Your task to perform on an android device: toggle notifications settings in the gmail app Image 0: 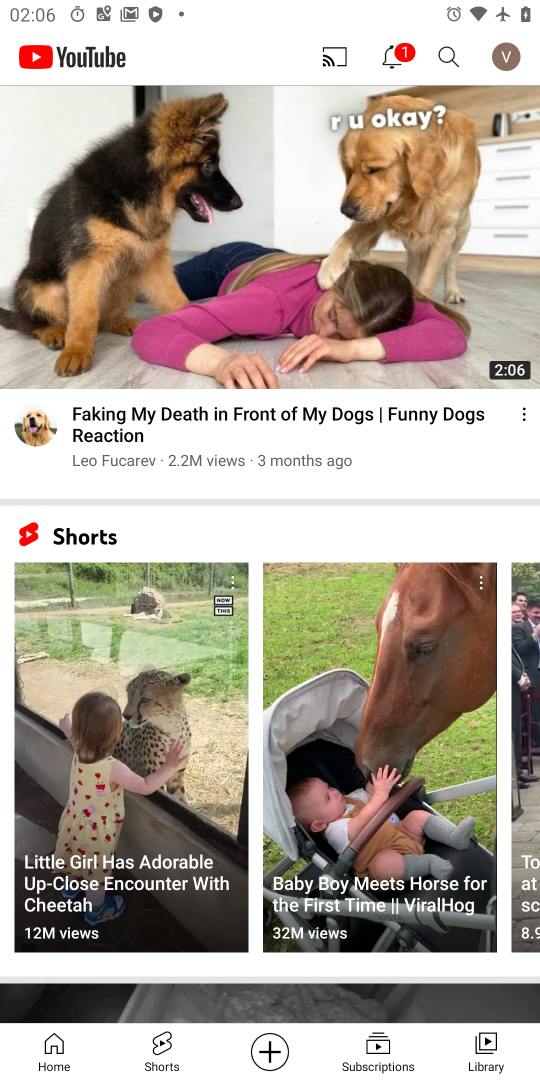
Step 0: press home button
Your task to perform on an android device: toggle notifications settings in the gmail app Image 1: 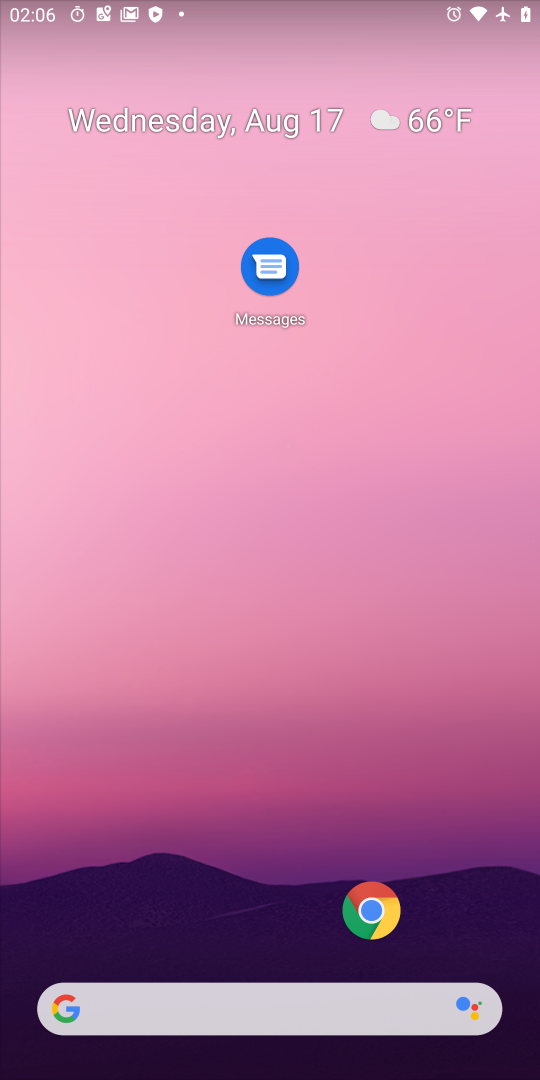
Step 1: press home button
Your task to perform on an android device: toggle notifications settings in the gmail app Image 2: 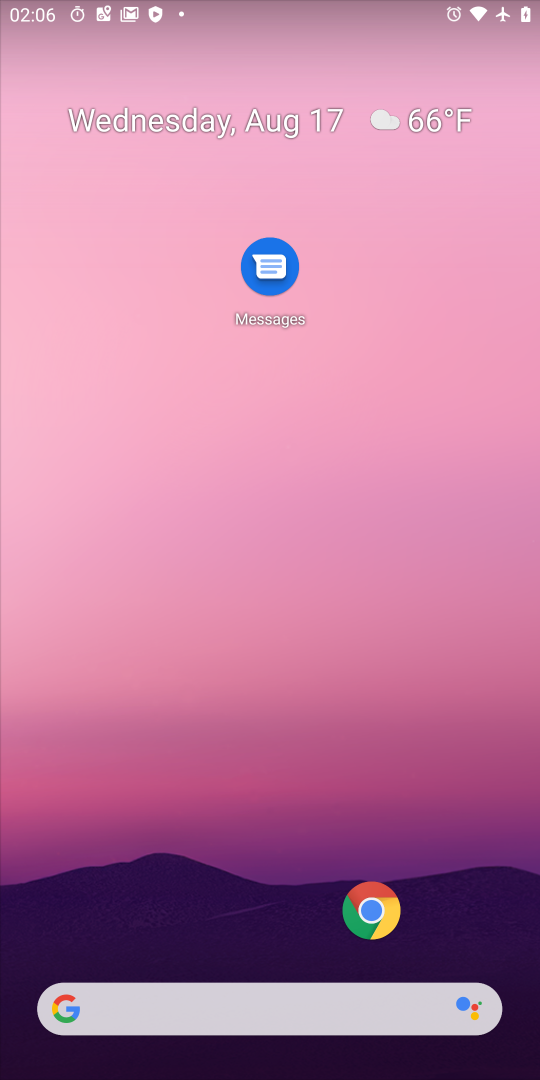
Step 2: click (165, 3)
Your task to perform on an android device: toggle notifications settings in the gmail app Image 3: 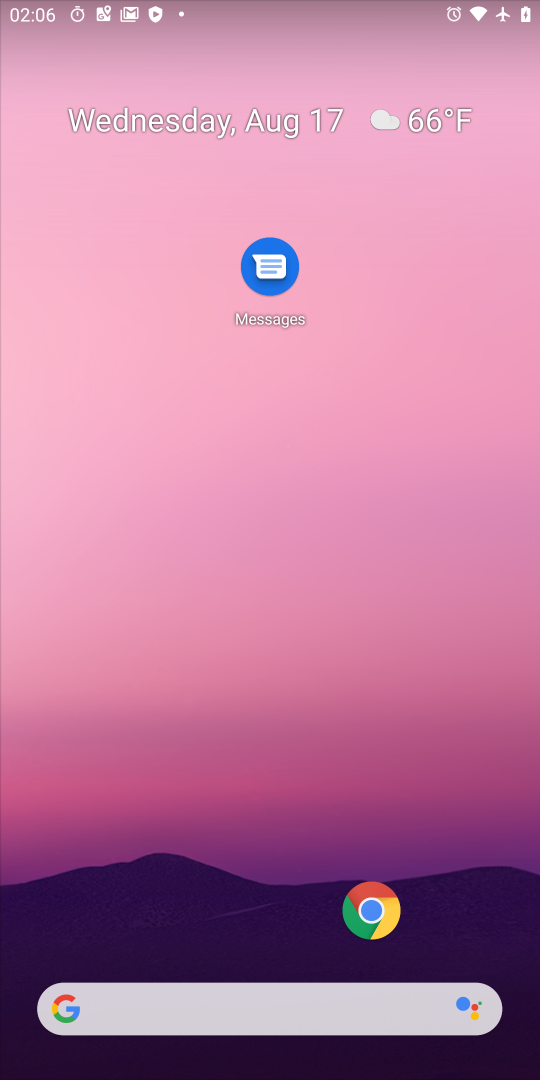
Step 3: drag from (254, 949) to (362, 102)
Your task to perform on an android device: toggle notifications settings in the gmail app Image 4: 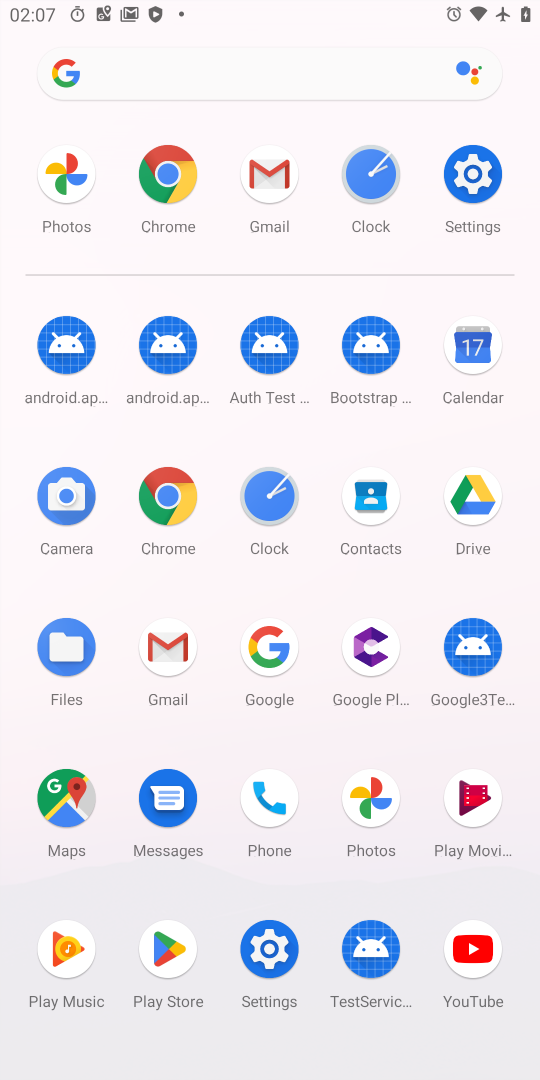
Step 4: click (162, 634)
Your task to perform on an android device: toggle notifications settings in the gmail app Image 5: 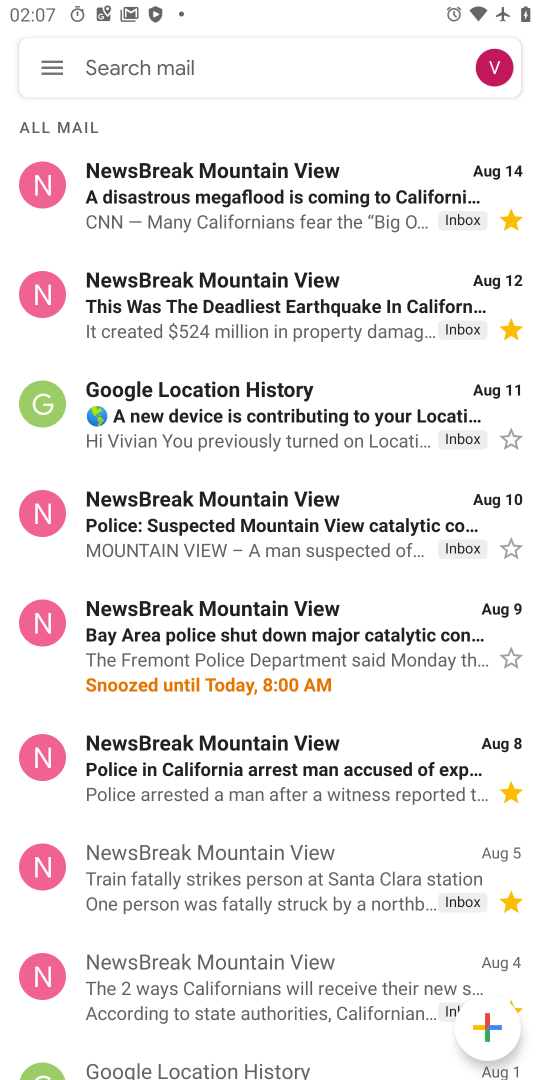
Step 5: click (44, 57)
Your task to perform on an android device: toggle notifications settings in the gmail app Image 6: 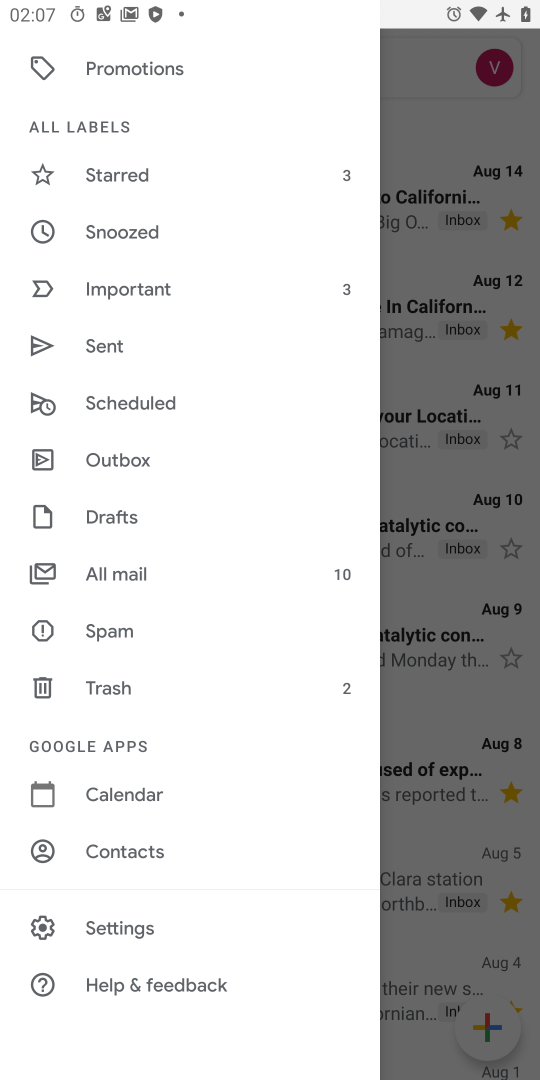
Step 6: click (119, 939)
Your task to perform on an android device: toggle notifications settings in the gmail app Image 7: 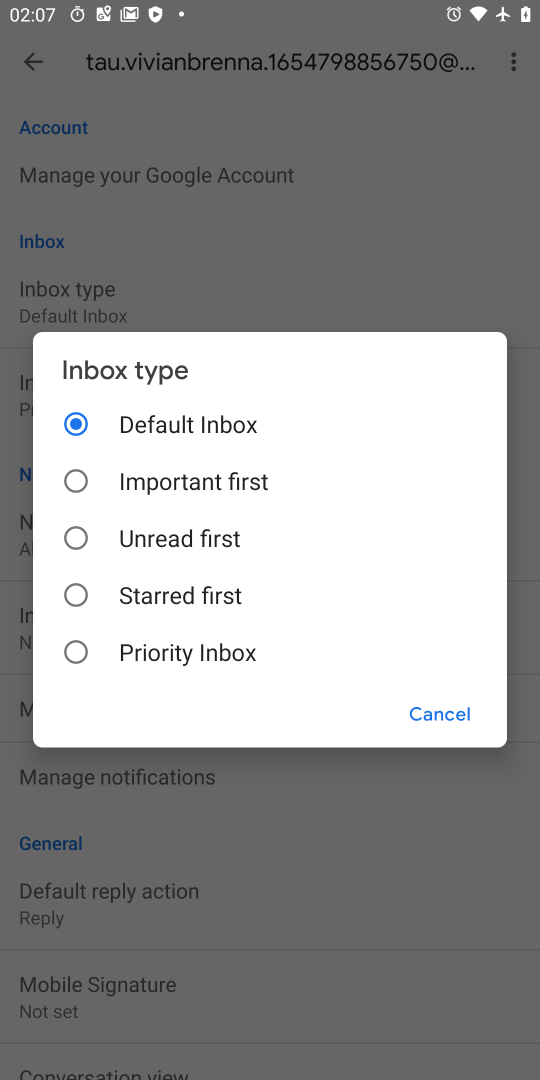
Step 7: click (444, 714)
Your task to perform on an android device: toggle notifications settings in the gmail app Image 8: 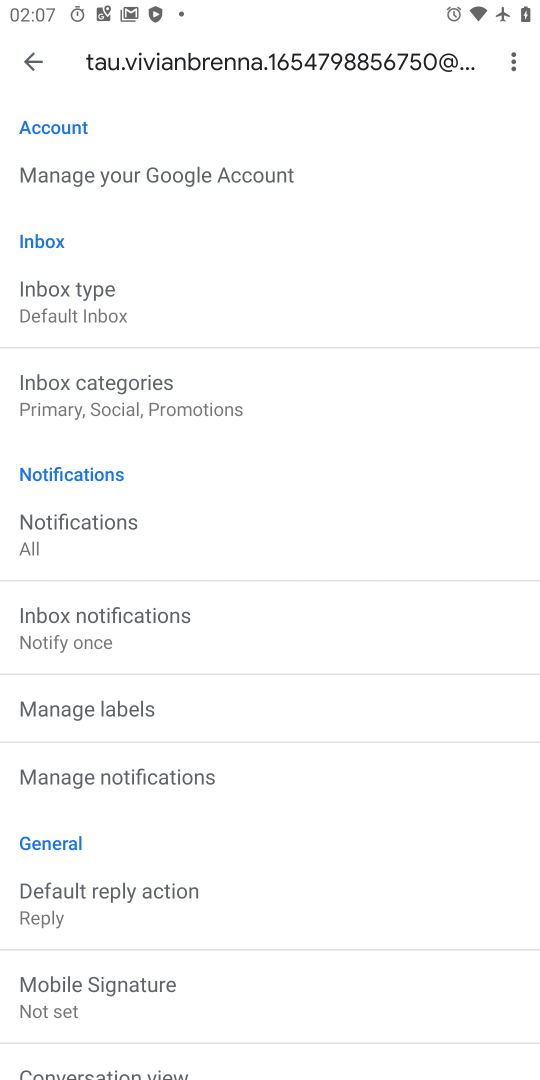
Step 8: click (67, 774)
Your task to perform on an android device: toggle notifications settings in the gmail app Image 9: 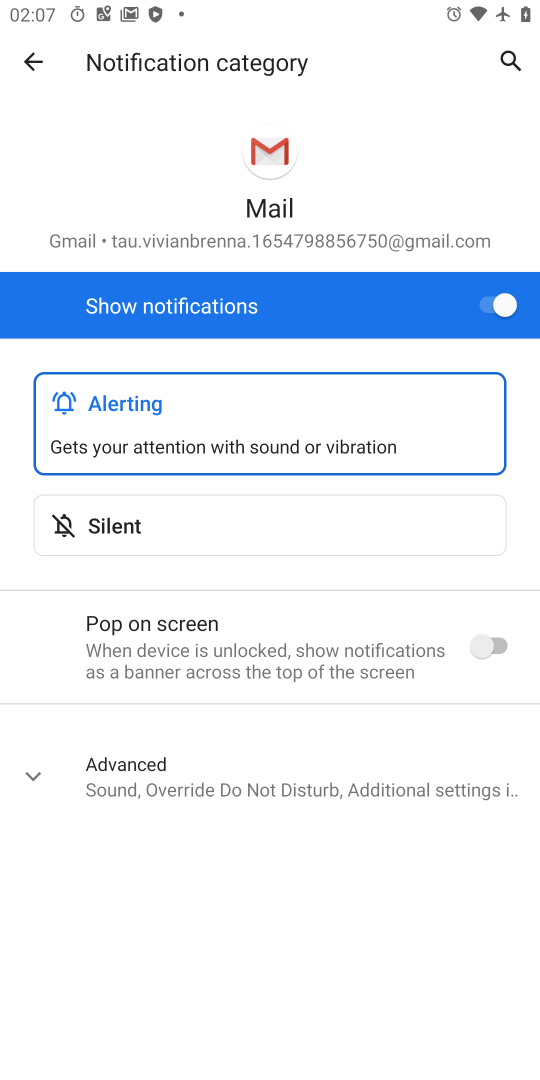
Step 9: click (474, 316)
Your task to perform on an android device: toggle notifications settings in the gmail app Image 10: 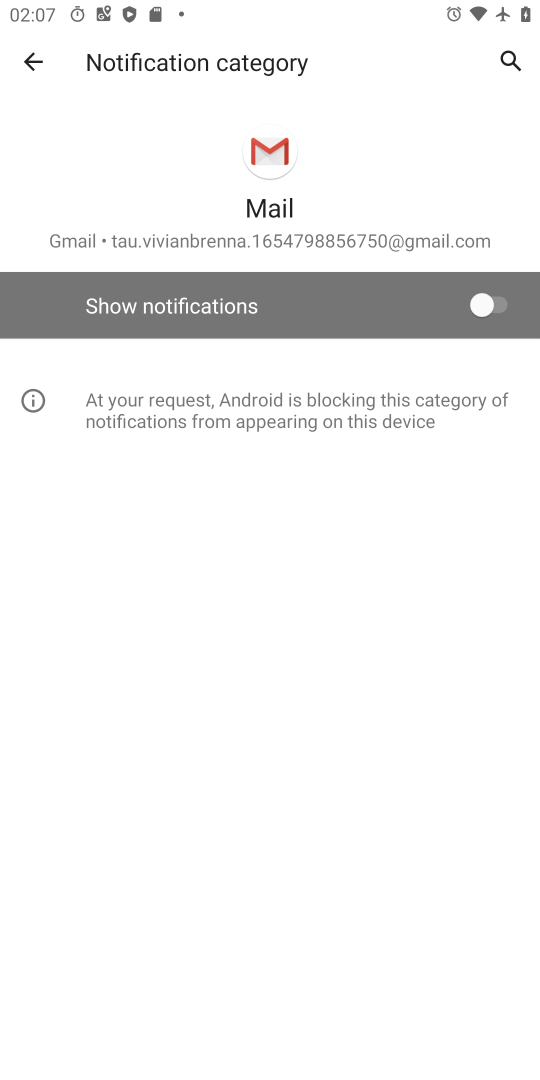
Step 10: task complete